Your task to perform on an android device: turn off notifications settings in the gmail app Image 0: 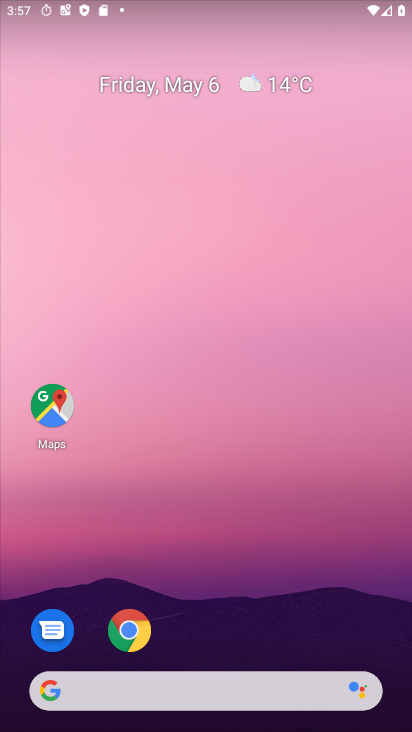
Step 0: drag from (172, 658) to (145, 92)
Your task to perform on an android device: turn off notifications settings in the gmail app Image 1: 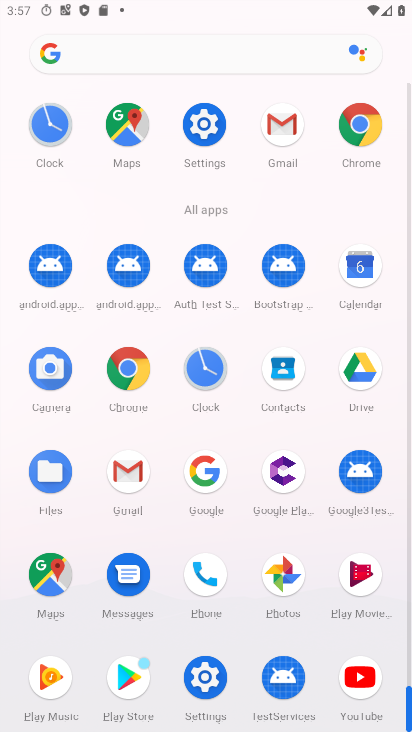
Step 1: click (285, 122)
Your task to perform on an android device: turn off notifications settings in the gmail app Image 2: 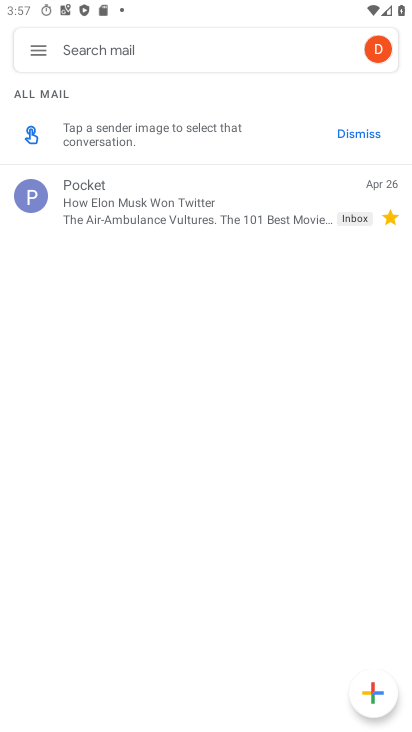
Step 2: click (34, 70)
Your task to perform on an android device: turn off notifications settings in the gmail app Image 3: 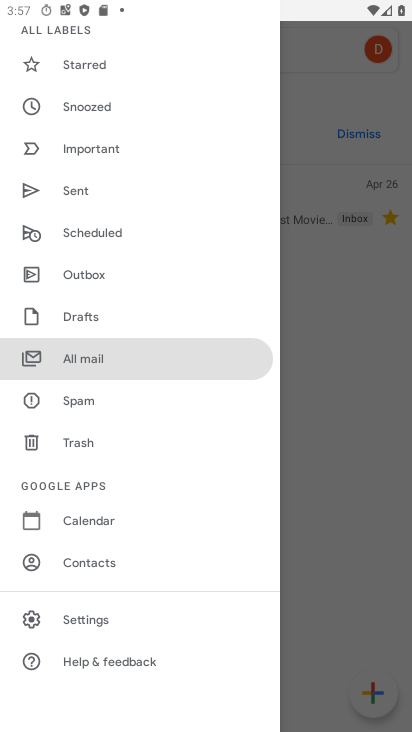
Step 3: click (97, 620)
Your task to perform on an android device: turn off notifications settings in the gmail app Image 4: 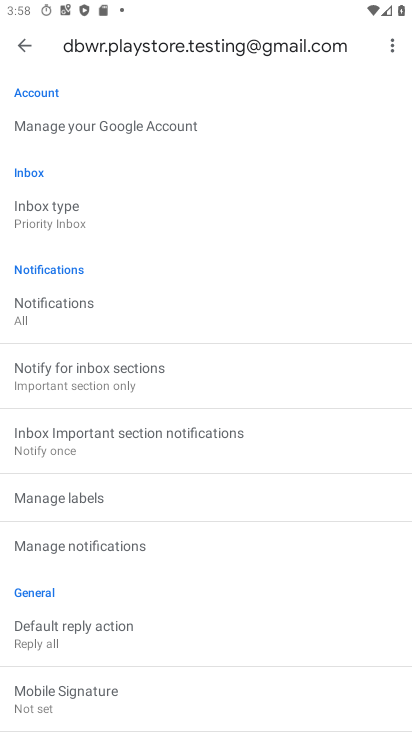
Step 4: click (100, 318)
Your task to perform on an android device: turn off notifications settings in the gmail app Image 5: 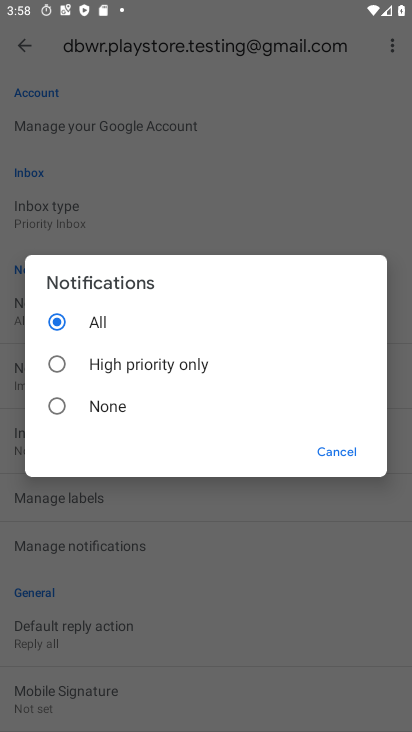
Step 5: click (94, 158)
Your task to perform on an android device: turn off notifications settings in the gmail app Image 6: 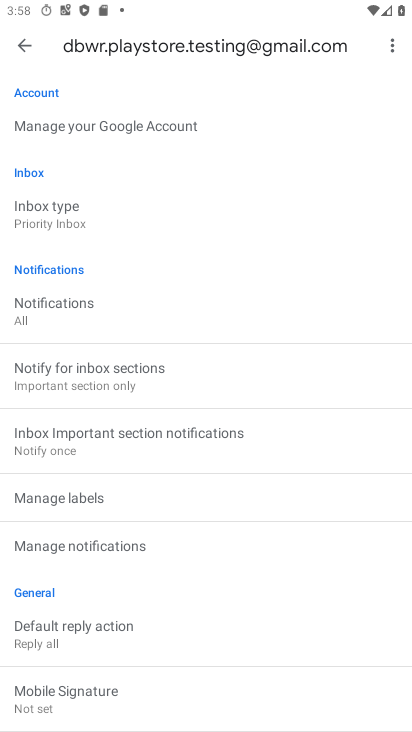
Step 6: click (87, 316)
Your task to perform on an android device: turn off notifications settings in the gmail app Image 7: 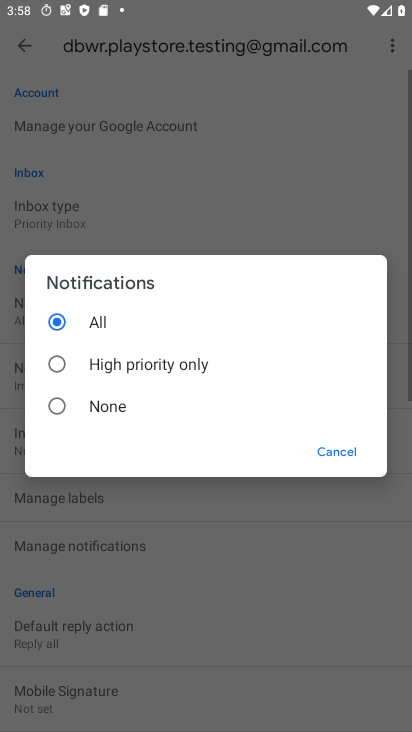
Step 7: click (96, 396)
Your task to perform on an android device: turn off notifications settings in the gmail app Image 8: 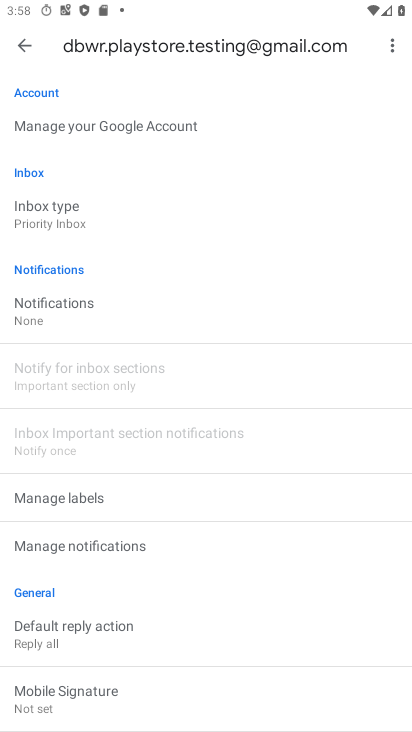
Step 8: task complete